Your task to perform on an android device: move a message to another label in the gmail app Image 0: 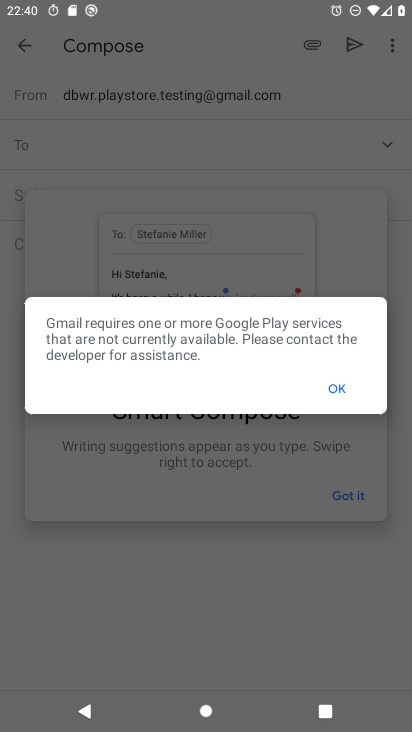
Step 0: press home button
Your task to perform on an android device: move a message to another label in the gmail app Image 1: 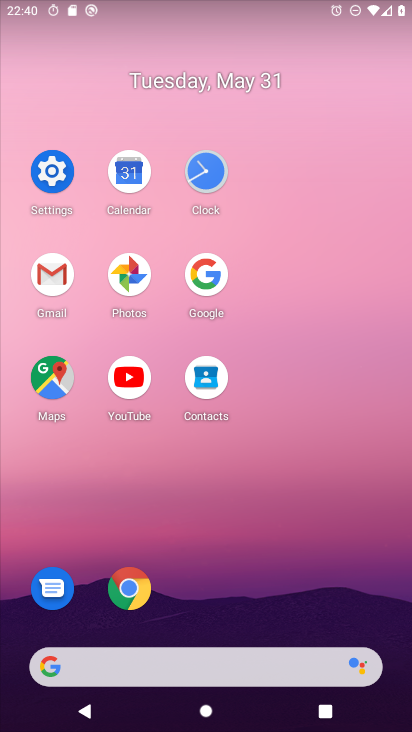
Step 1: click (57, 285)
Your task to perform on an android device: move a message to another label in the gmail app Image 2: 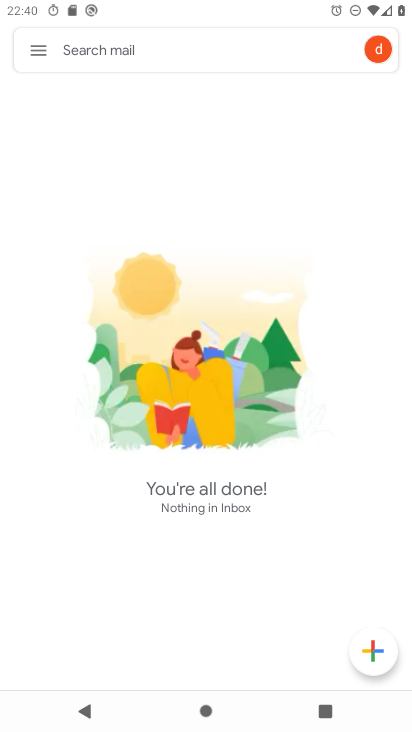
Step 2: click (21, 50)
Your task to perform on an android device: move a message to another label in the gmail app Image 3: 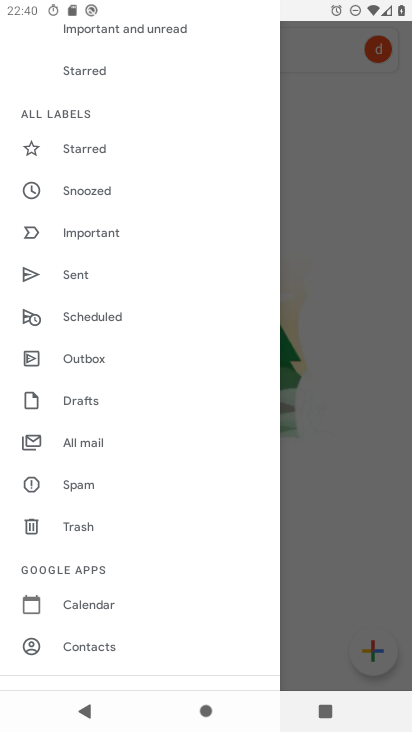
Step 3: drag from (107, 515) to (133, 214)
Your task to perform on an android device: move a message to another label in the gmail app Image 4: 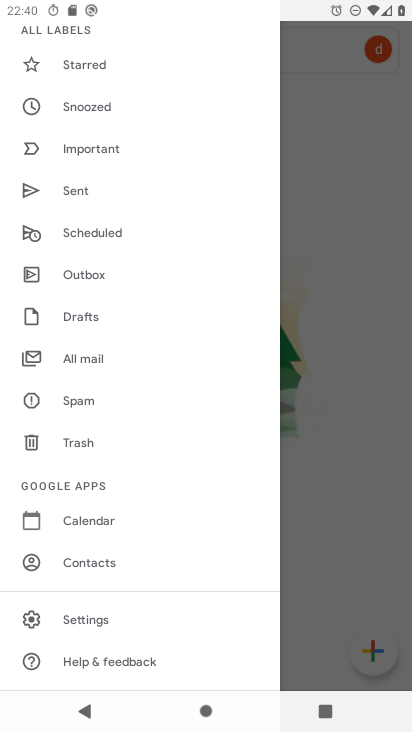
Step 4: click (73, 366)
Your task to perform on an android device: move a message to another label in the gmail app Image 5: 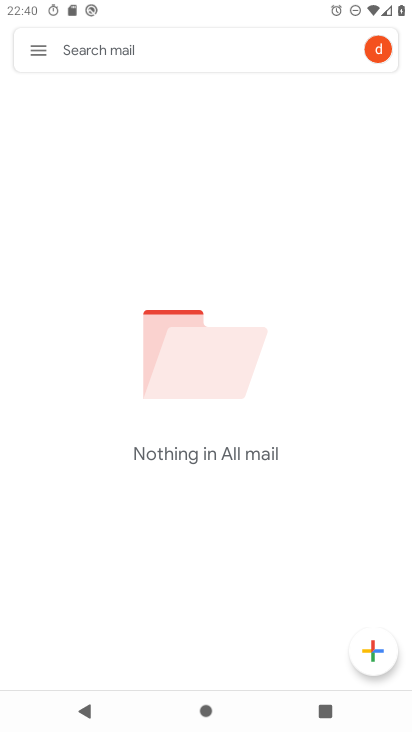
Step 5: task complete